Your task to perform on an android device: find photos in the google photos app Image 0: 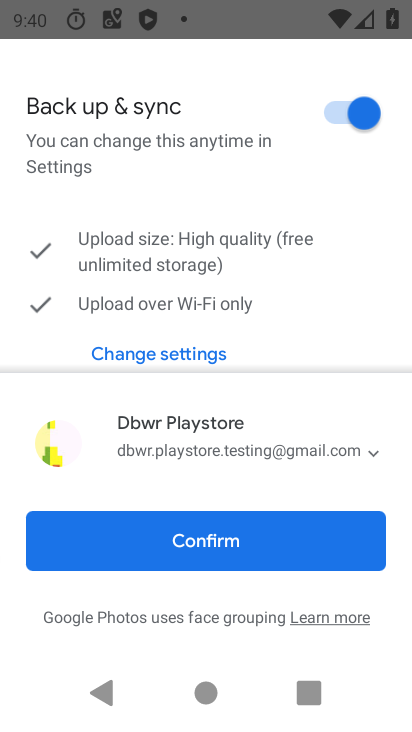
Step 0: click (211, 525)
Your task to perform on an android device: find photos in the google photos app Image 1: 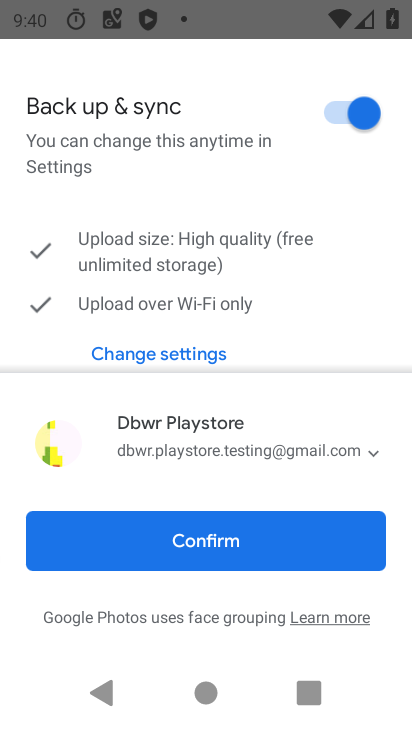
Step 1: click (244, 545)
Your task to perform on an android device: find photos in the google photos app Image 2: 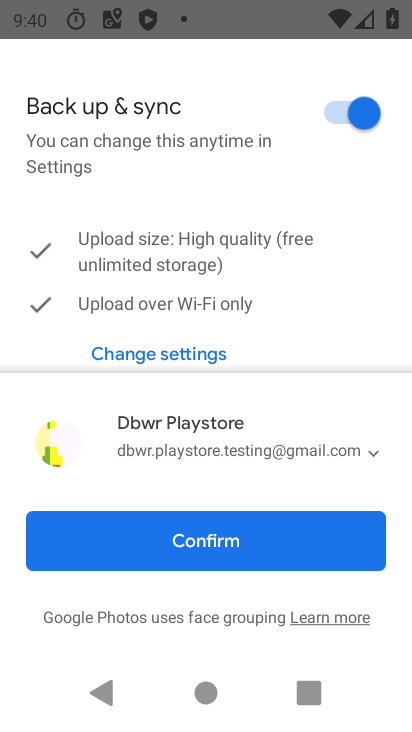
Step 2: click (245, 545)
Your task to perform on an android device: find photos in the google photos app Image 3: 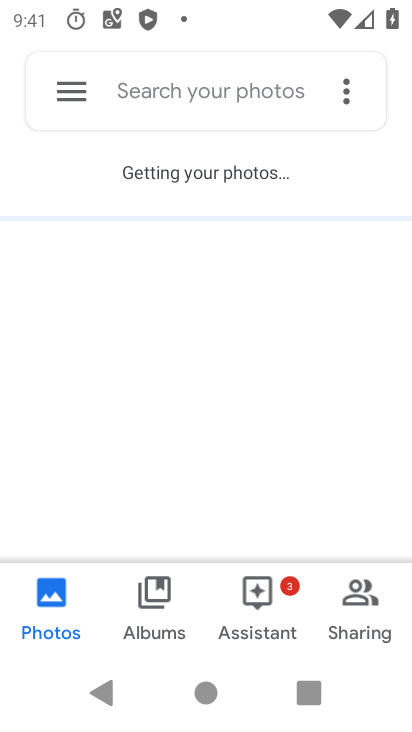
Step 3: press back button
Your task to perform on an android device: find photos in the google photos app Image 4: 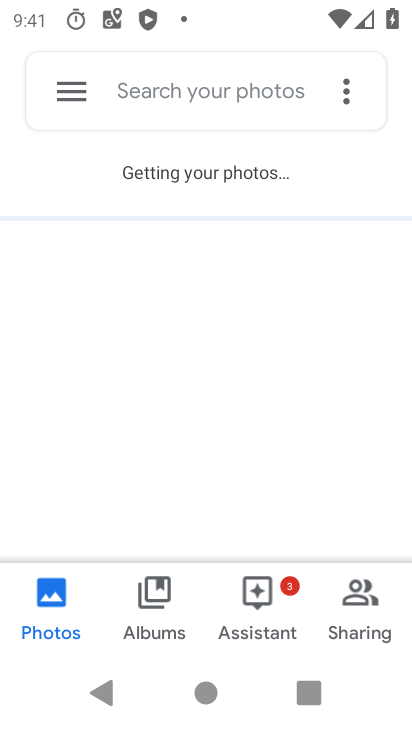
Step 4: press back button
Your task to perform on an android device: find photos in the google photos app Image 5: 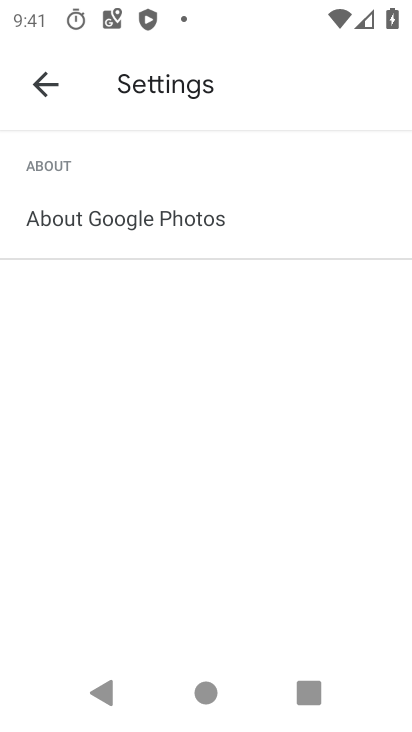
Step 5: press back button
Your task to perform on an android device: find photos in the google photos app Image 6: 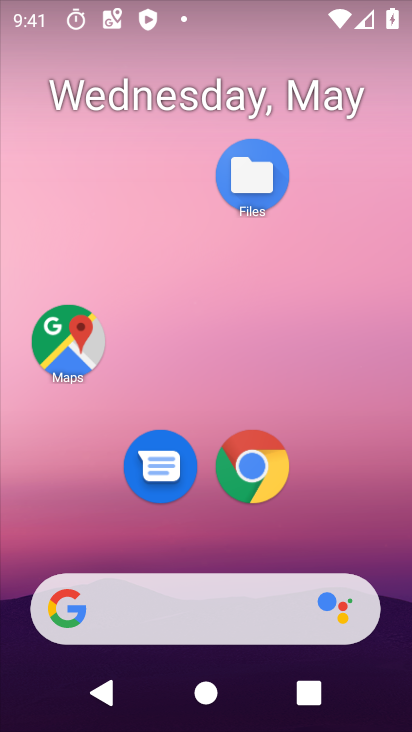
Step 6: drag from (257, 695) to (105, 192)
Your task to perform on an android device: find photos in the google photos app Image 7: 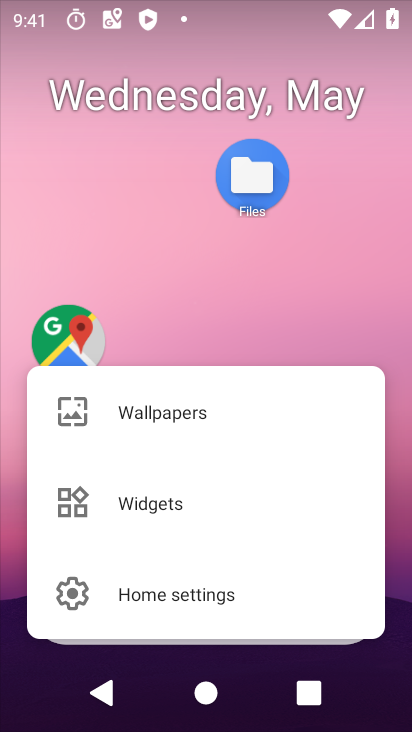
Step 7: drag from (195, 534) to (38, 102)
Your task to perform on an android device: find photos in the google photos app Image 8: 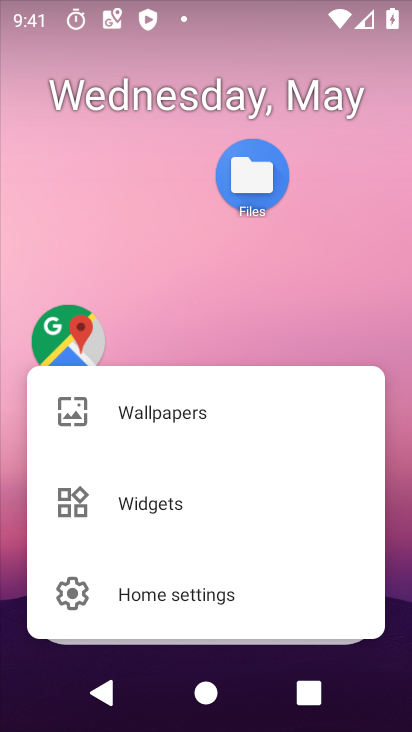
Step 8: click (171, 274)
Your task to perform on an android device: find photos in the google photos app Image 9: 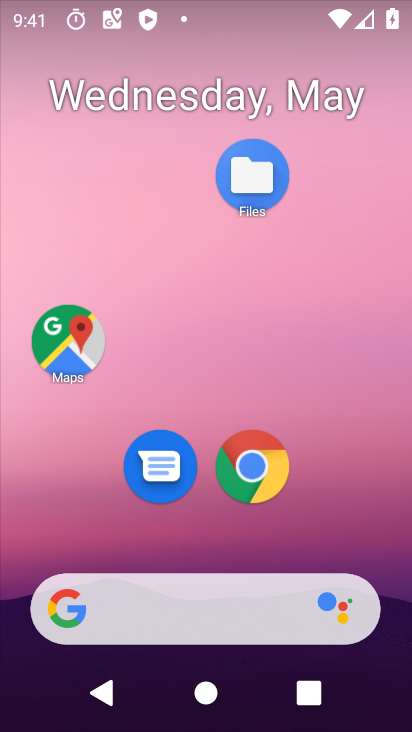
Step 9: drag from (215, 561) to (87, 146)
Your task to perform on an android device: find photos in the google photos app Image 10: 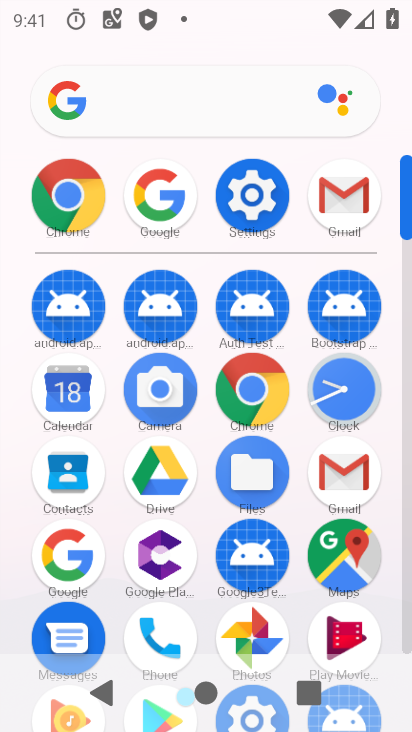
Step 10: click (259, 622)
Your task to perform on an android device: find photos in the google photos app Image 11: 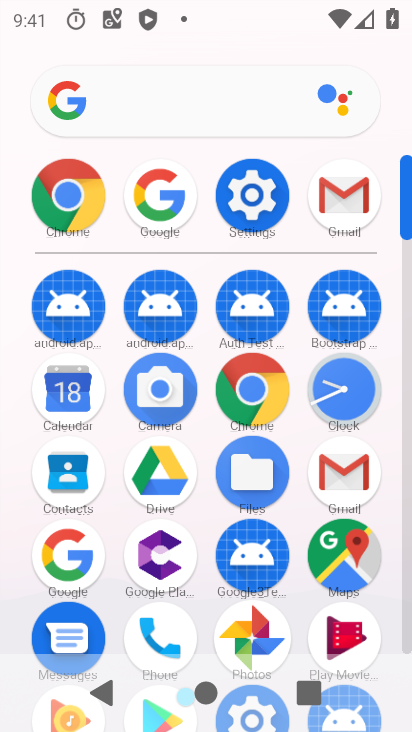
Step 11: click (257, 626)
Your task to perform on an android device: find photos in the google photos app Image 12: 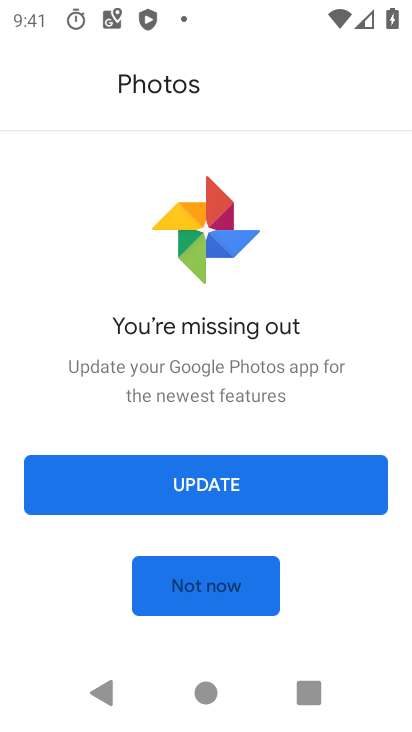
Step 12: click (191, 479)
Your task to perform on an android device: find photos in the google photos app Image 13: 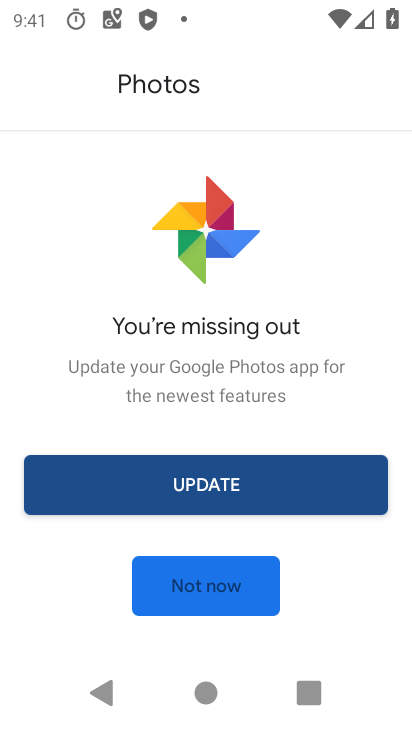
Step 13: click (193, 477)
Your task to perform on an android device: find photos in the google photos app Image 14: 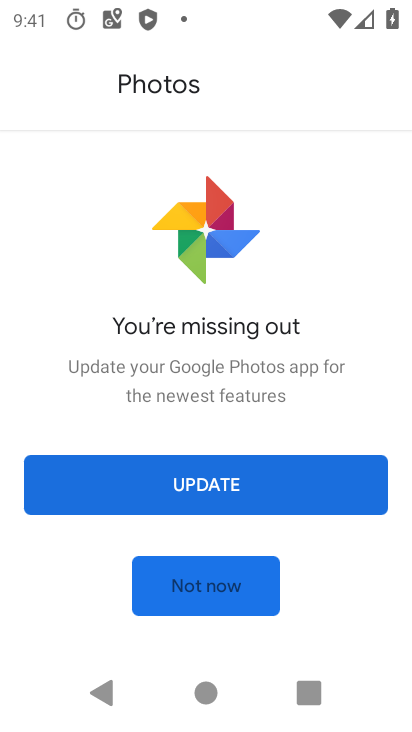
Step 14: click (191, 477)
Your task to perform on an android device: find photos in the google photos app Image 15: 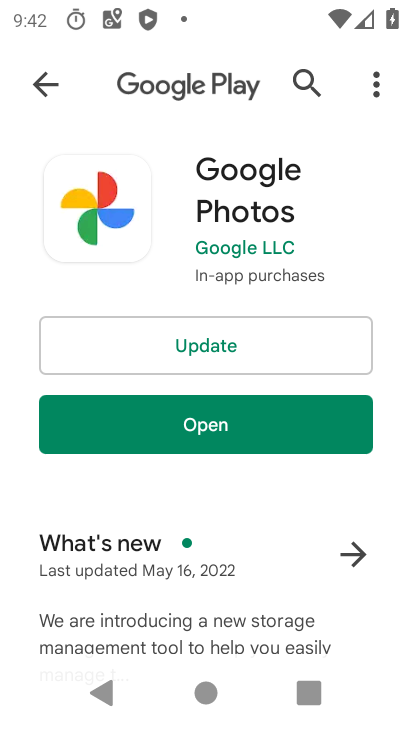
Step 15: click (201, 419)
Your task to perform on an android device: find photos in the google photos app Image 16: 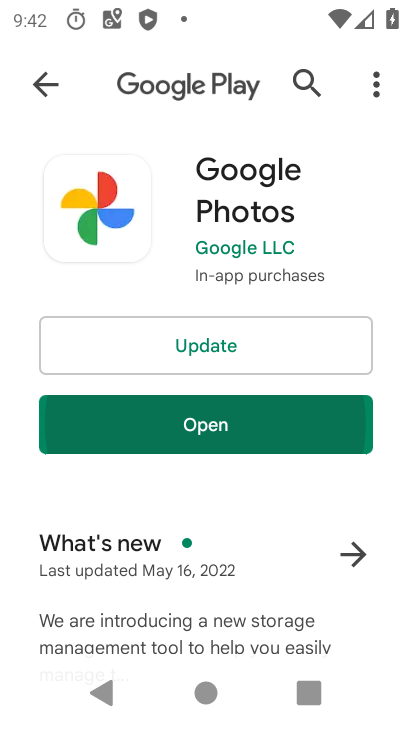
Step 16: click (204, 417)
Your task to perform on an android device: find photos in the google photos app Image 17: 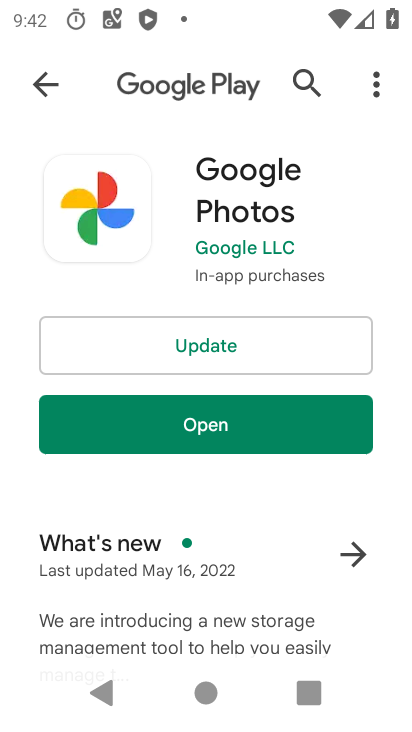
Step 17: click (204, 417)
Your task to perform on an android device: find photos in the google photos app Image 18: 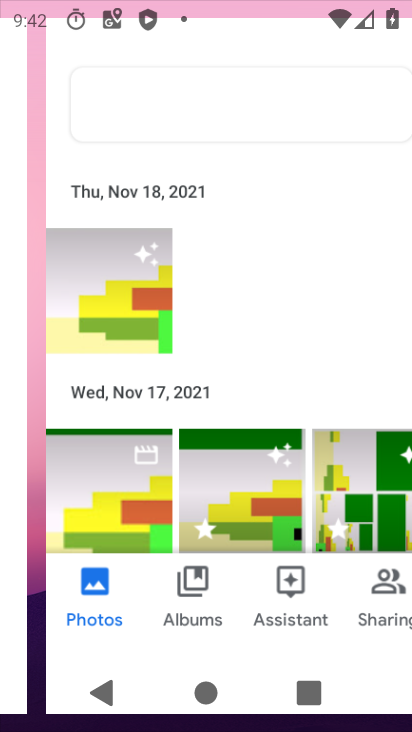
Step 18: click (204, 417)
Your task to perform on an android device: find photos in the google photos app Image 19: 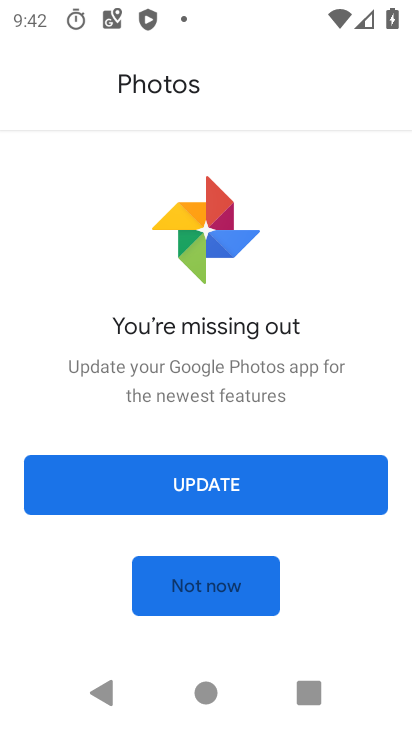
Step 19: click (193, 589)
Your task to perform on an android device: find photos in the google photos app Image 20: 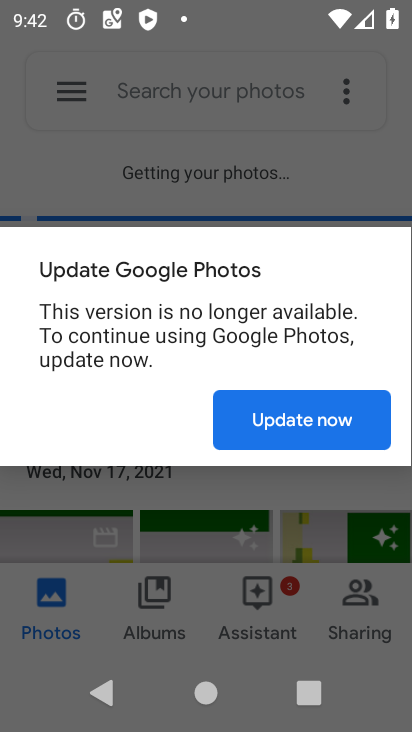
Step 20: click (282, 426)
Your task to perform on an android device: find photos in the google photos app Image 21: 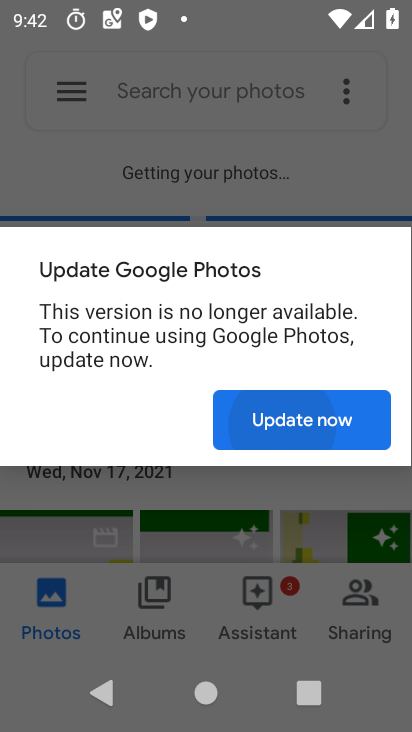
Step 21: click (285, 421)
Your task to perform on an android device: find photos in the google photos app Image 22: 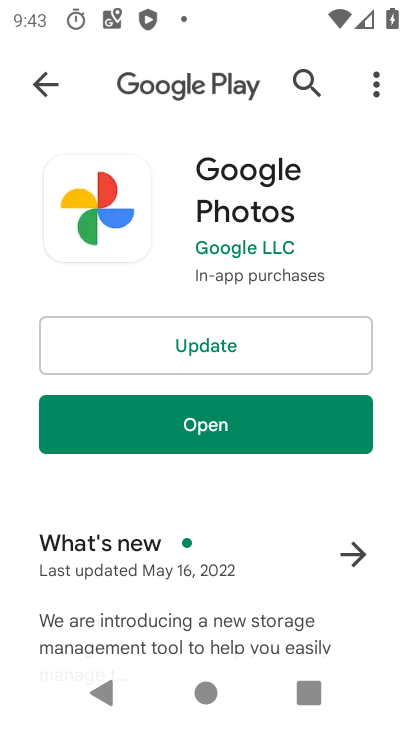
Step 22: click (211, 426)
Your task to perform on an android device: find photos in the google photos app Image 23: 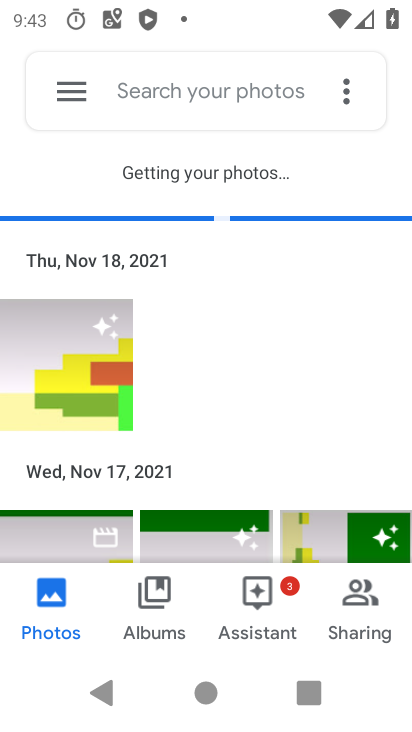
Step 23: task complete